Your task to perform on an android device: Go to notification settings Image 0: 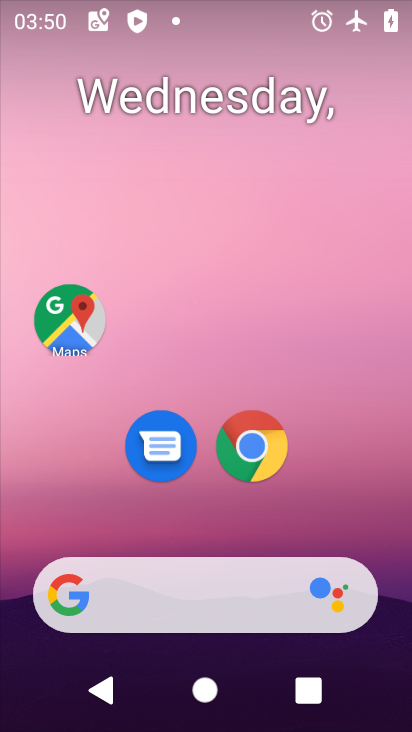
Step 0: drag from (203, 547) to (209, 263)
Your task to perform on an android device: Go to notification settings Image 1: 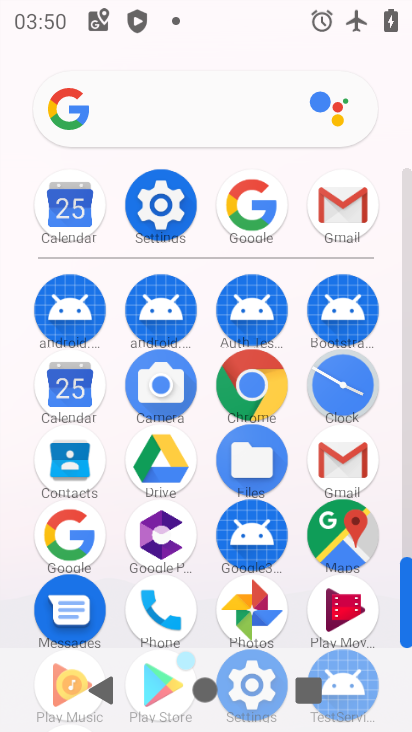
Step 1: click (157, 220)
Your task to perform on an android device: Go to notification settings Image 2: 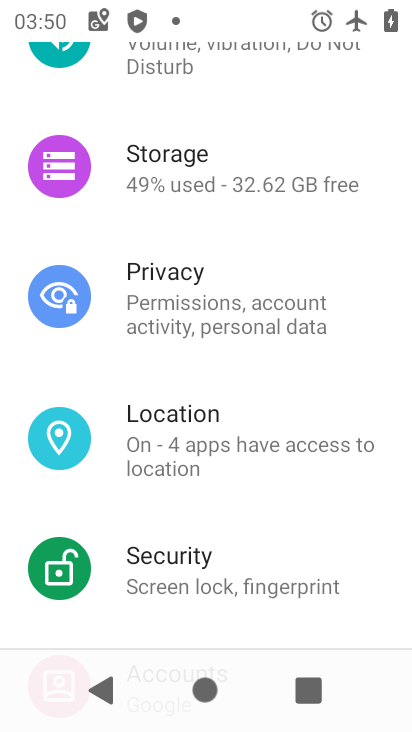
Step 2: drag from (253, 158) to (253, 488)
Your task to perform on an android device: Go to notification settings Image 3: 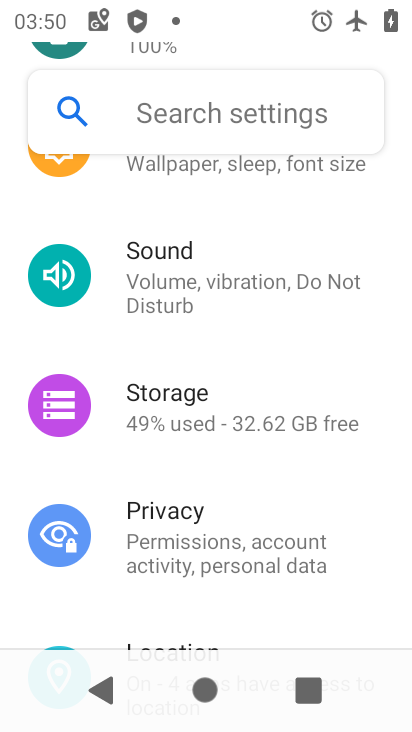
Step 3: drag from (221, 270) to (254, 521)
Your task to perform on an android device: Go to notification settings Image 4: 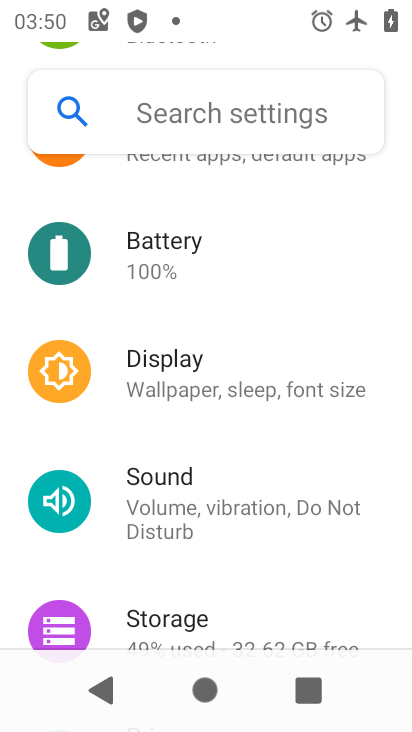
Step 4: drag from (194, 288) to (233, 481)
Your task to perform on an android device: Go to notification settings Image 5: 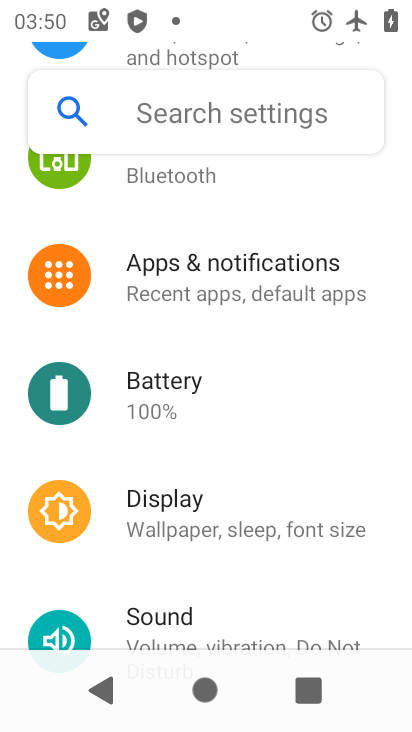
Step 5: click (217, 305)
Your task to perform on an android device: Go to notification settings Image 6: 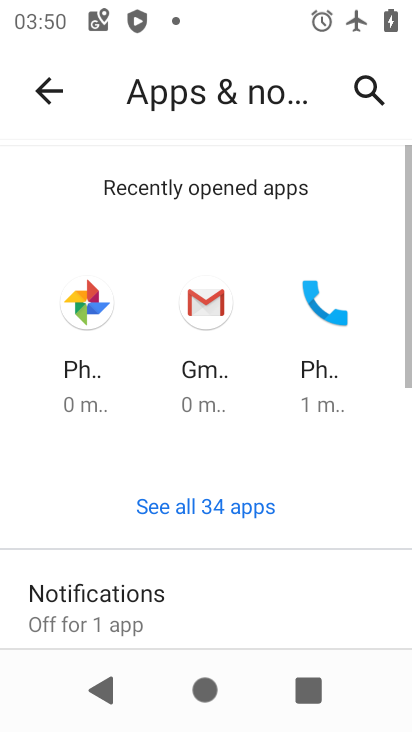
Step 6: click (237, 586)
Your task to perform on an android device: Go to notification settings Image 7: 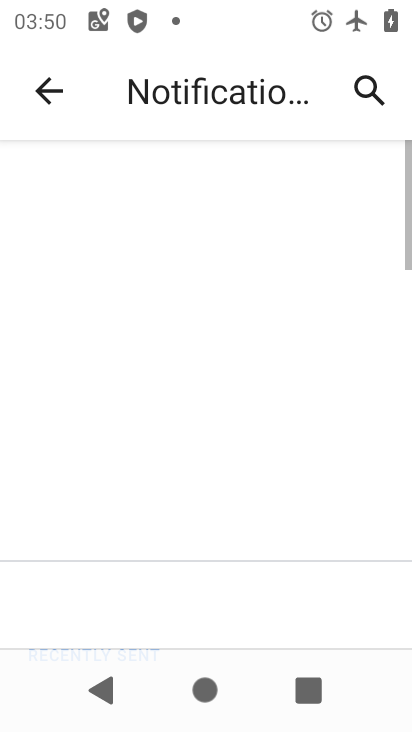
Step 7: task complete